Your task to perform on an android device: Open notification settings Image 0: 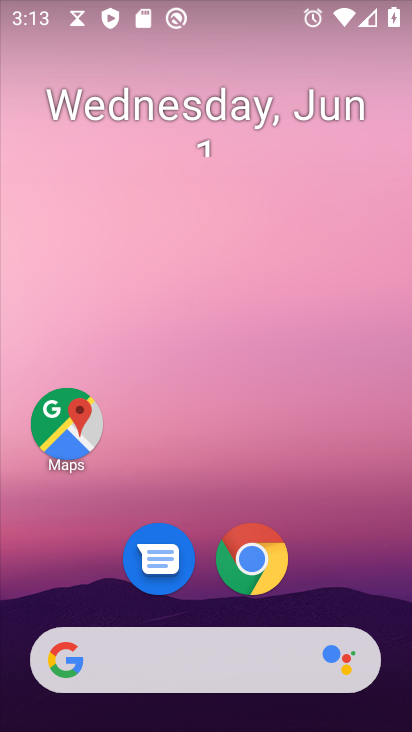
Step 0: drag from (327, 599) to (286, 1)
Your task to perform on an android device: Open notification settings Image 1: 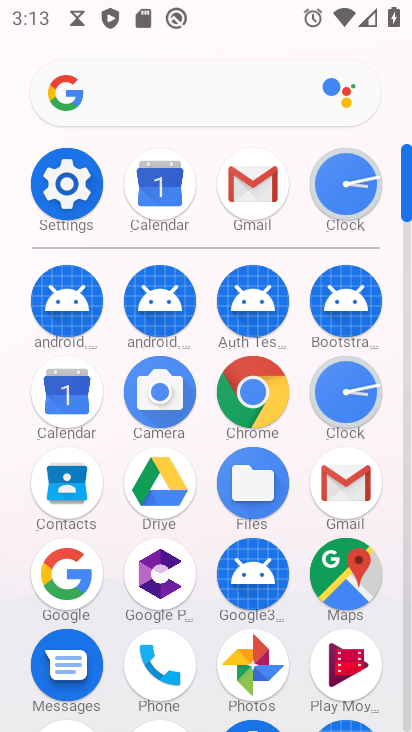
Step 1: click (70, 187)
Your task to perform on an android device: Open notification settings Image 2: 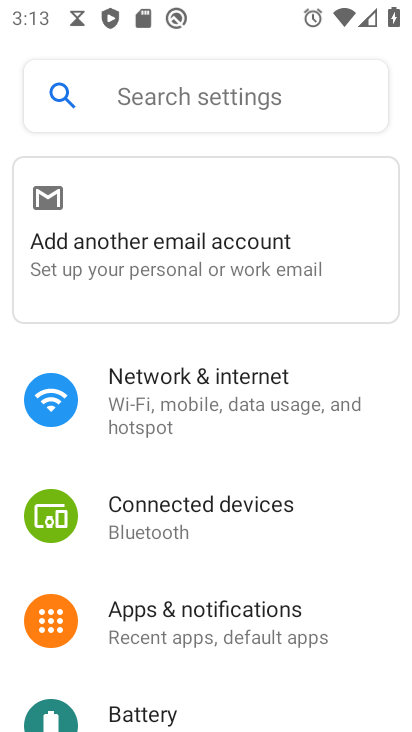
Step 2: click (208, 616)
Your task to perform on an android device: Open notification settings Image 3: 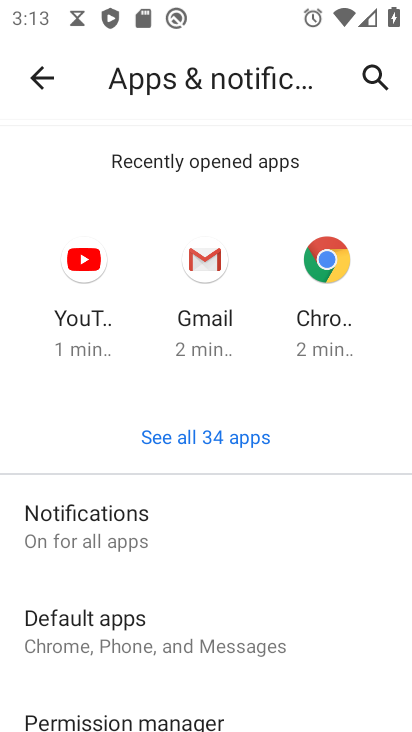
Step 3: click (103, 530)
Your task to perform on an android device: Open notification settings Image 4: 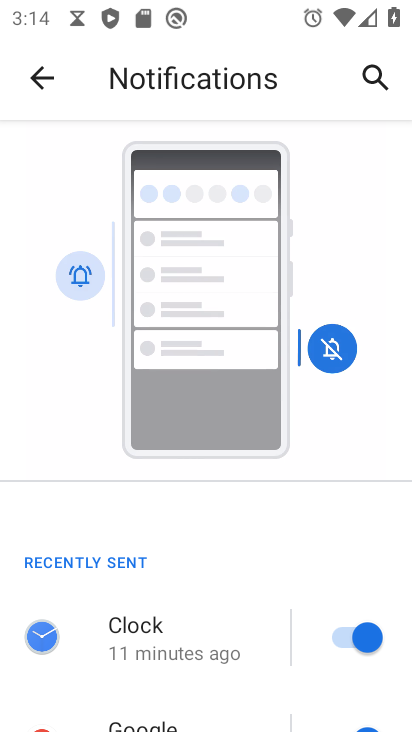
Step 4: task complete